Your task to perform on an android device: Open calendar and show me the second week of next month Image 0: 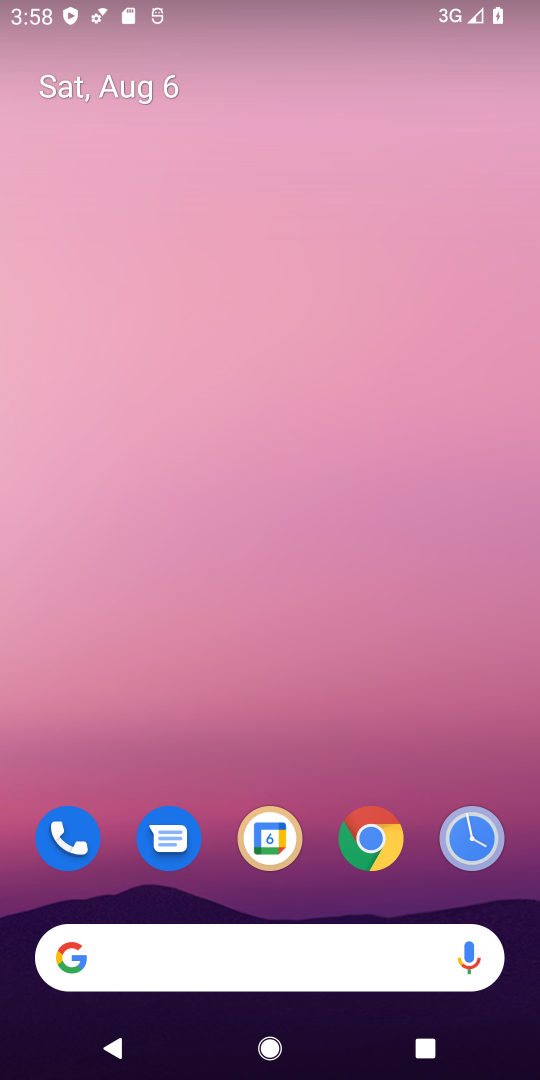
Step 0: drag from (349, 946) to (297, 134)
Your task to perform on an android device: Open calendar and show me the second week of next month Image 1: 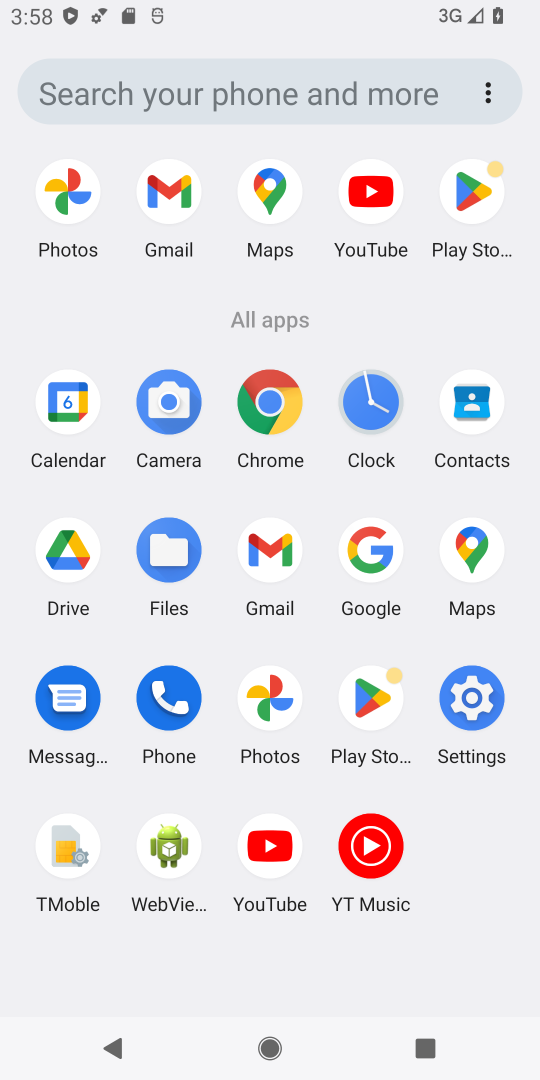
Step 1: click (70, 407)
Your task to perform on an android device: Open calendar and show me the second week of next month Image 2: 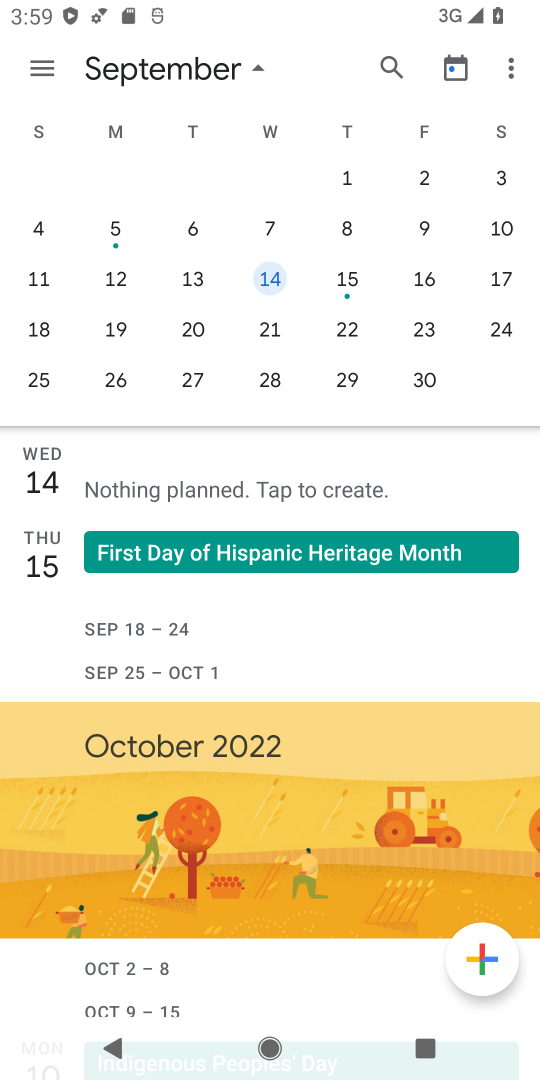
Step 2: click (346, 218)
Your task to perform on an android device: Open calendar and show me the second week of next month Image 3: 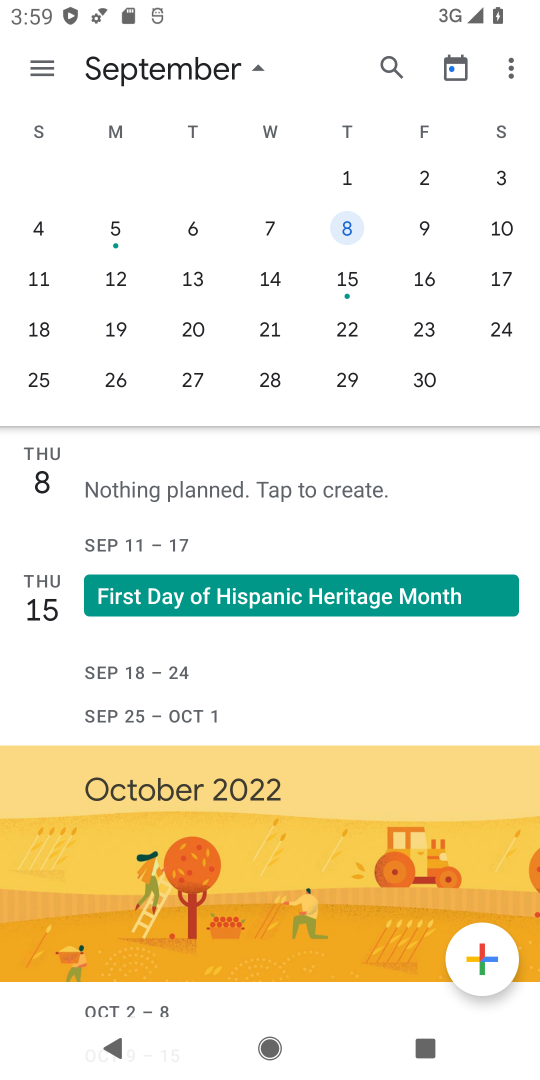
Step 3: task complete